Your task to perform on an android device: Open ESPN.com Image 0: 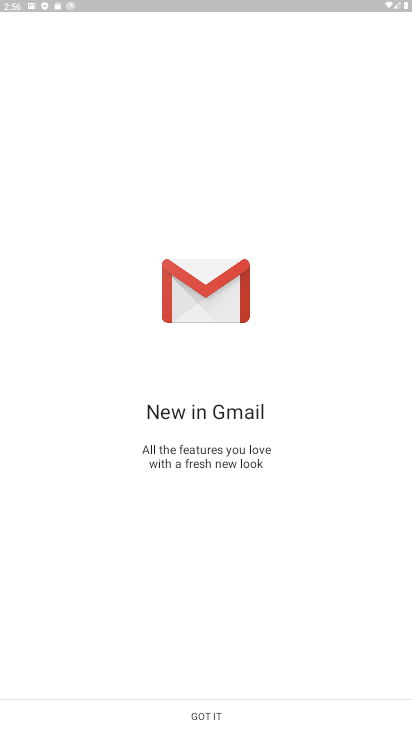
Step 0: press home button
Your task to perform on an android device: Open ESPN.com Image 1: 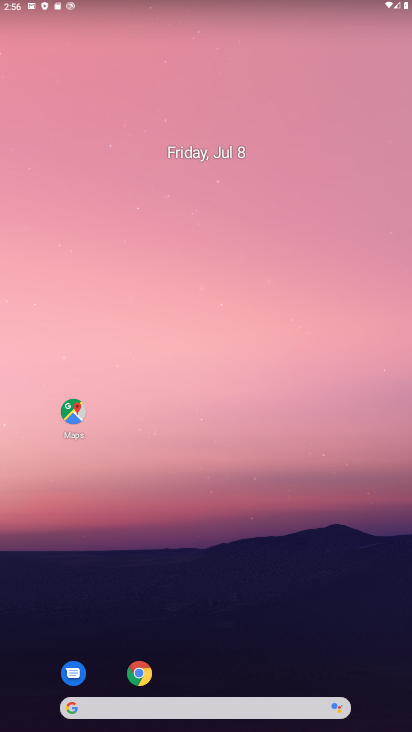
Step 1: click (146, 667)
Your task to perform on an android device: Open ESPN.com Image 2: 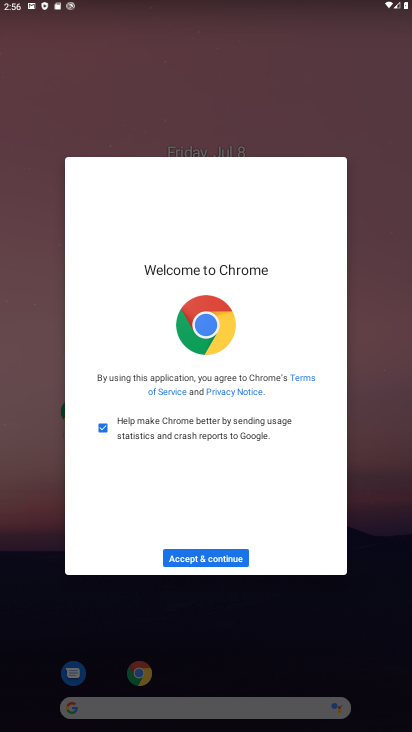
Step 2: click (194, 561)
Your task to perform on an android device: Open ESPN.com Image 3: 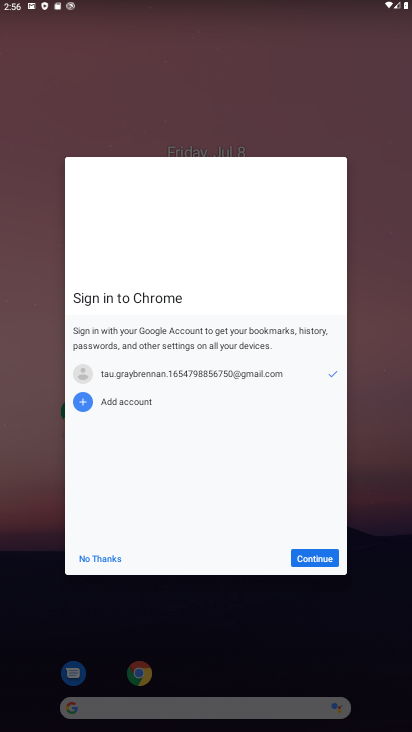
Step 3: click (309, 564)
Your task to perform on an android device: Open ESPN.com Image 4: 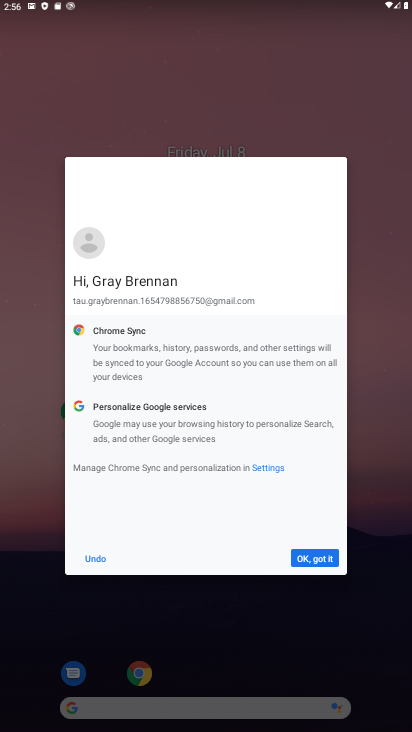
Step 4: click (323, 560)
Your task to perform on an android device: Open ESPN.com Image 5: 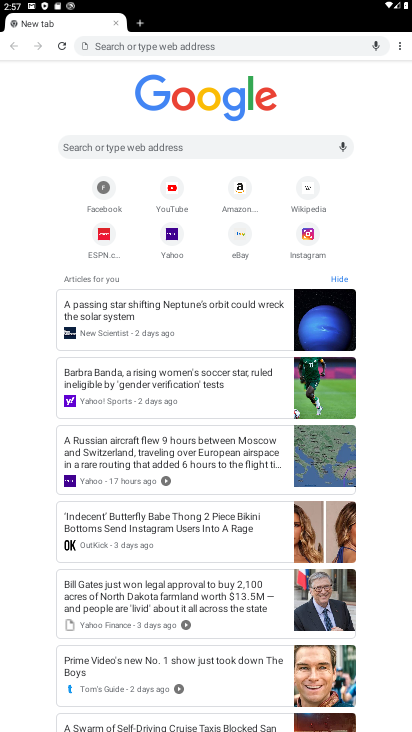
Step 5: click (105, 234)
Your task to perform on an android device: Open ESPN.com Image 6: 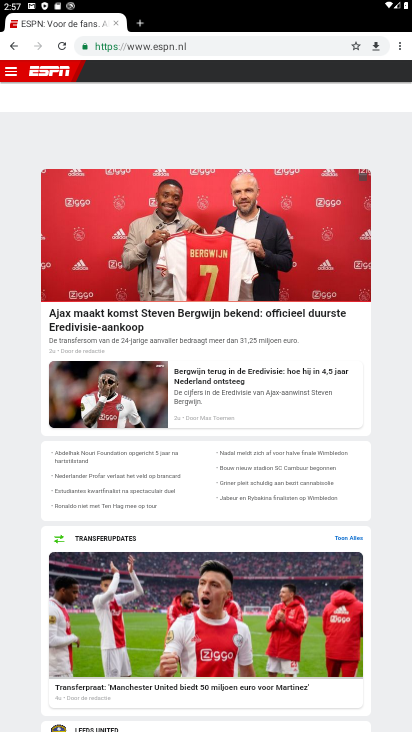
Step 6: task complete